Your task to perform on an android device: see sites visited before in the chrome app Image 0: 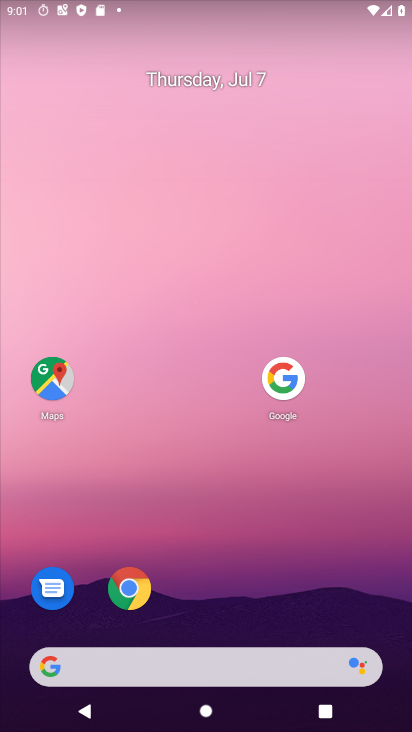
Step 0: click (129, 593)
Your task to perform on an android device: see sites visited before in the chrome app Image 1: 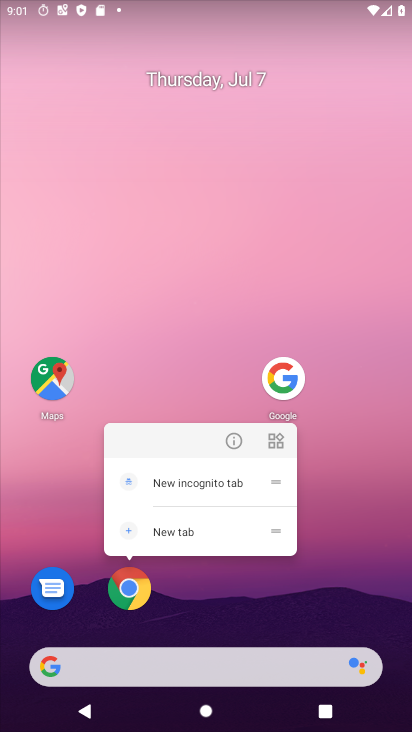
Step 1: click (132, 592)
Your task to perform on an android device: see sites visited before in the chrome app Image 2: 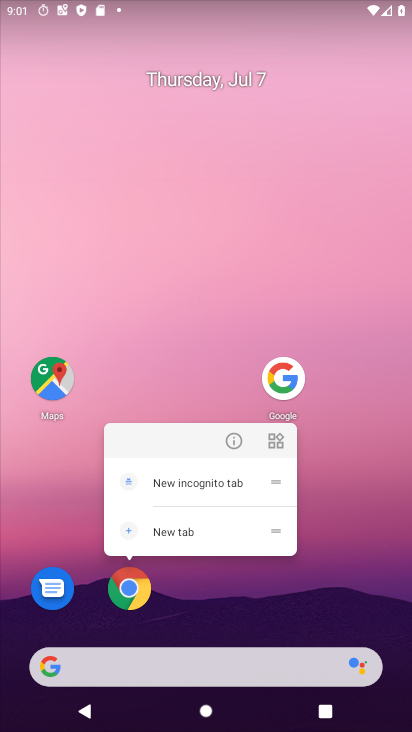
Step 2: click (134, 589)
Your task to perform on an android device: see sites visited before in the chrome app Image 3: 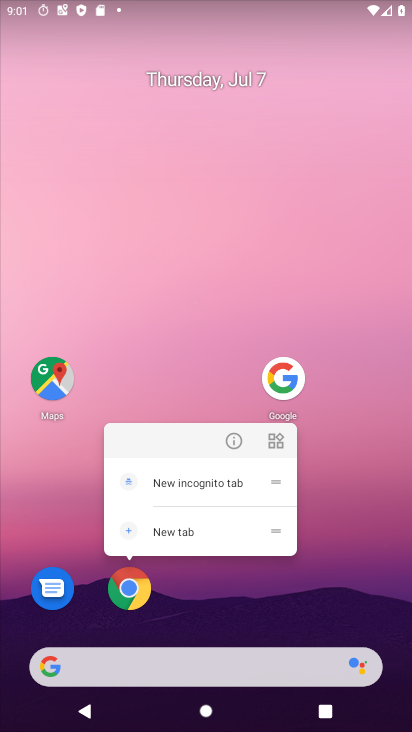
Step 3: click (125, 588)
Your task to perform on an android device: see sites visited before in the chrome app Image 4: 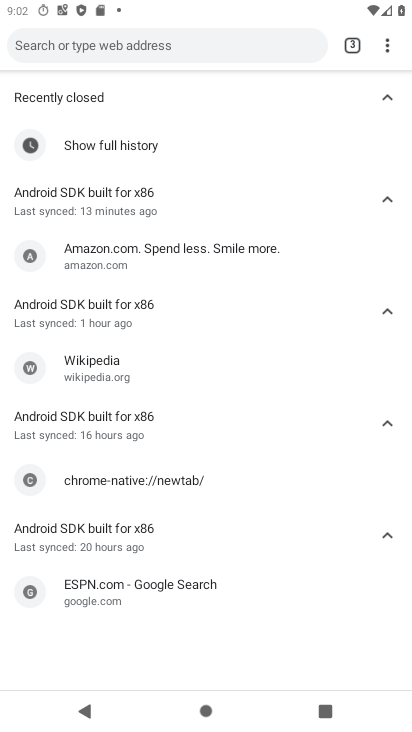
Step 4: task complete